Your task to perform on an android device: empty trash in the gmail app Image 0: 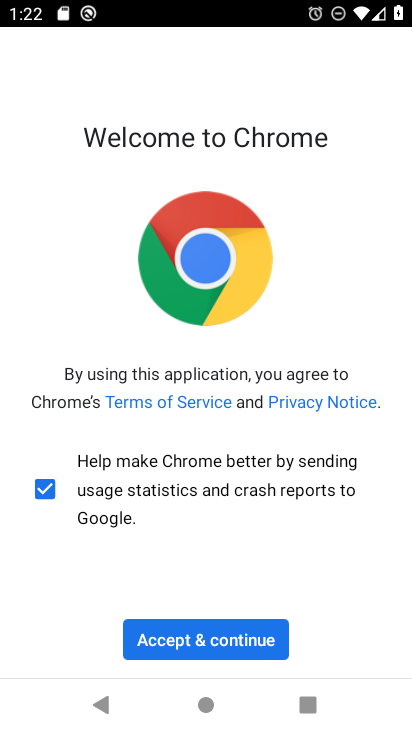
Step 0: press back button
Your task to perform on an android device: empty trash in the gmail app Image 1: 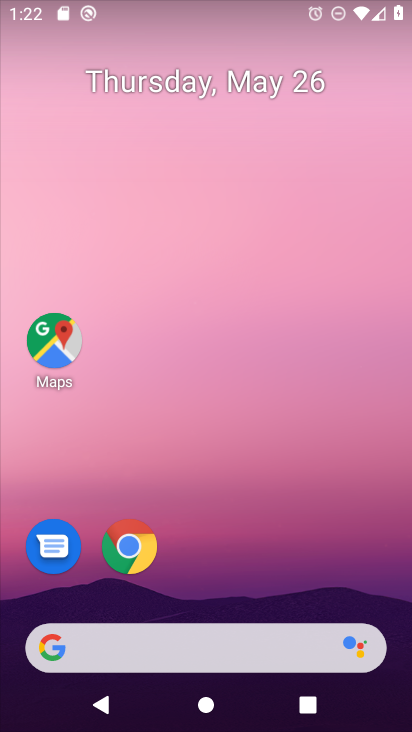
Step 1: drag from (205, 611) to (336, 30)
Your task to perform on an android device: empty trash in the gmail app Image 2: 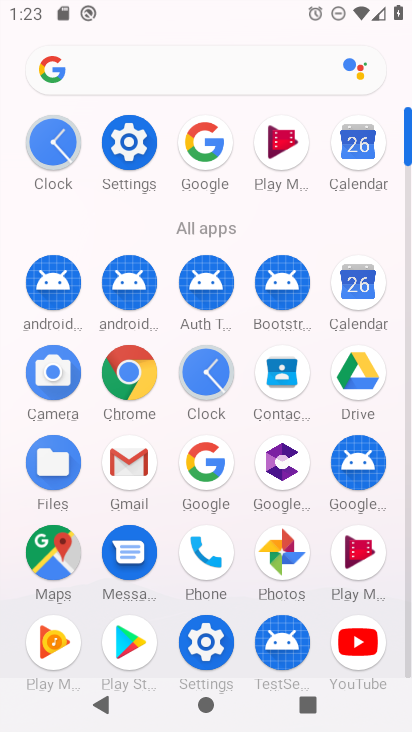
Step 2: click (133, 450)
Your task to perform on an android device: empty trash in the gmail app Image 3: 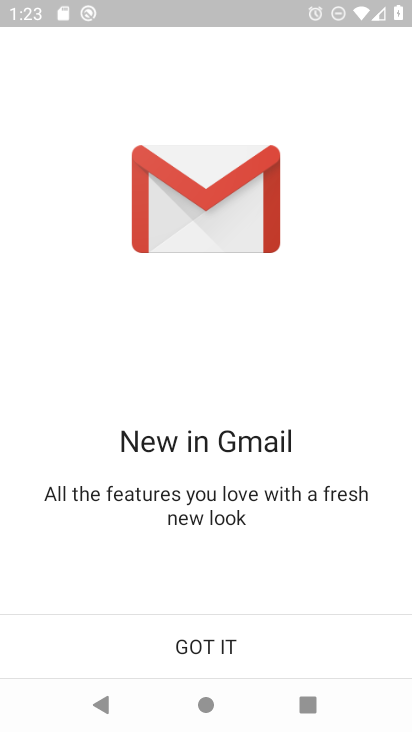
Step 3: click (199, 650)
Your task to perform on an android device: empty trash in the gmail app Image 4: 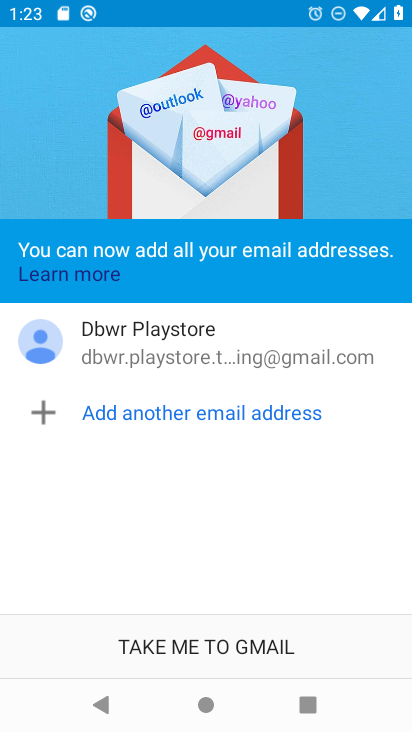
Step 4: click (199, 650)
Your task to perform on an android device: empty trash in the gmail app Image 5: 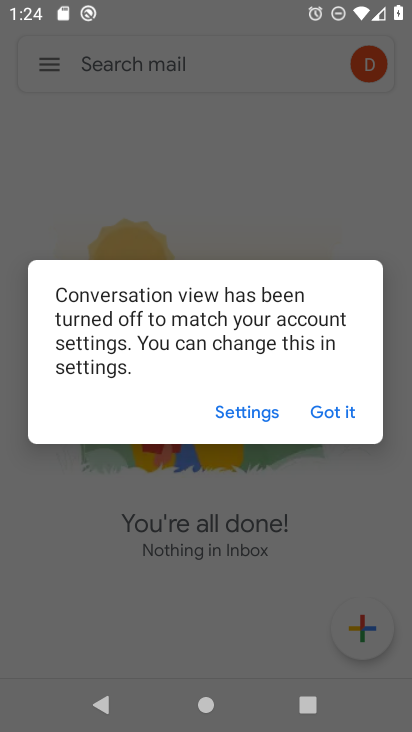
Step 5: click (325, 416)
Your task to perform on an android device: empty trash in the gmail app Image 6: 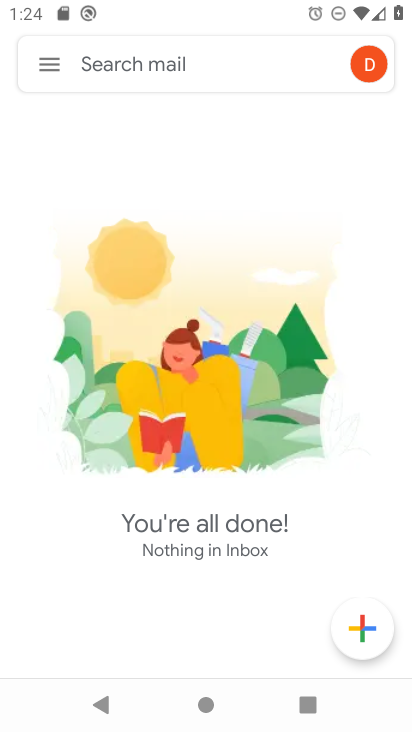
Step 6: click (42, 70)
Your task to perform on an android device: empty trash in the gmail app Image 7: 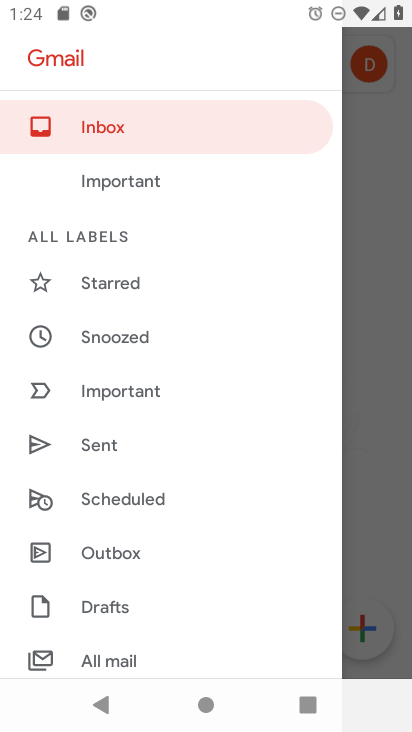
Step 7: drag from (107, 655) to (108, 140)
Your task to perform on an android device: empty trash in the gmail app Image 8: 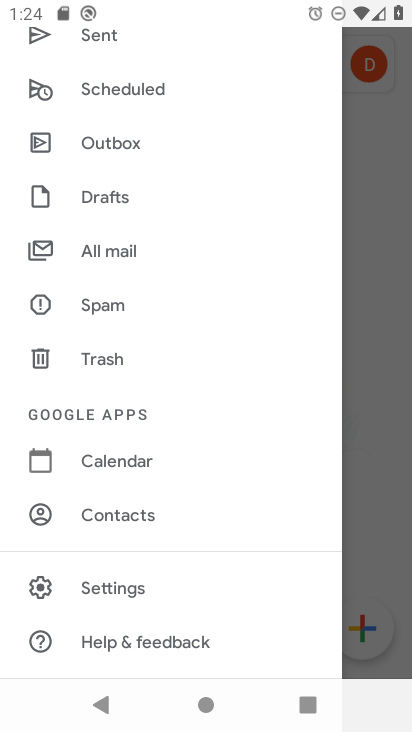
Step 8: click (120, 355)
Your task to perform on an android device: empty trash in the gmail app Image 9: 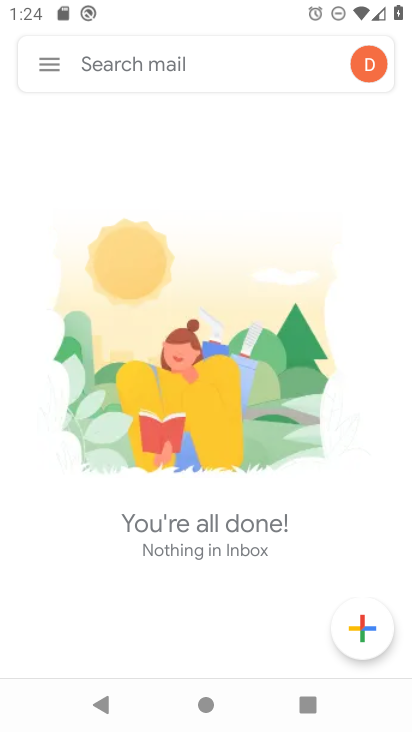
Step 9: click (120, 355)
Your task to perform on an android device: empty trash in the gmail app Image 10: 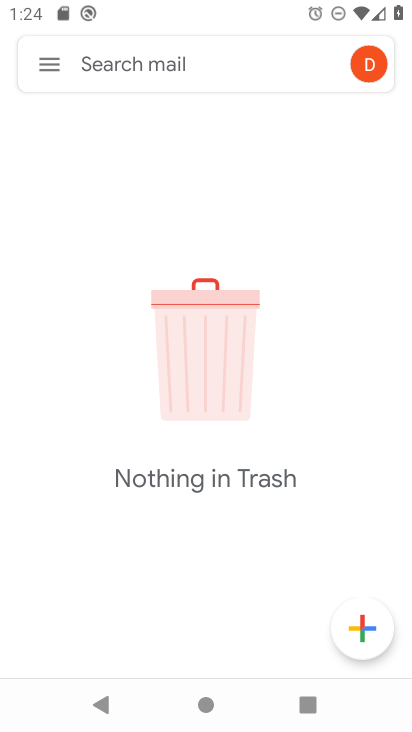
Step 10: task complete